Your task to perform on an android device: clear all cookies in the chrome app Image 0: 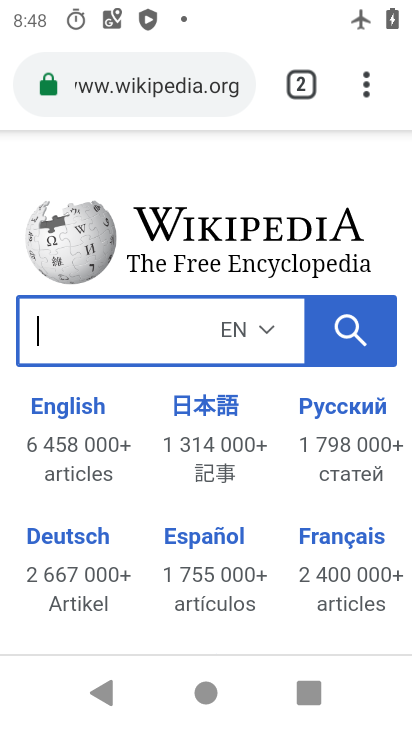
Step 0: click (297, 0)
Your task to perform on an android device: clear all cookies in the chrome app Image 1: 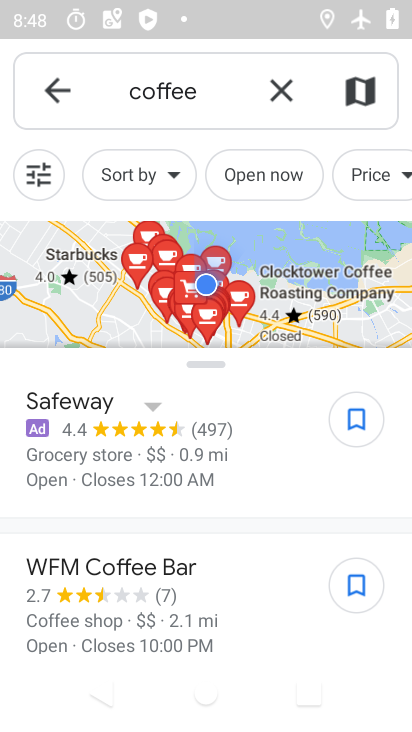
Step 1: press home button
Your task to perform on an android device: clear all cookies in the chrome app Image 2: 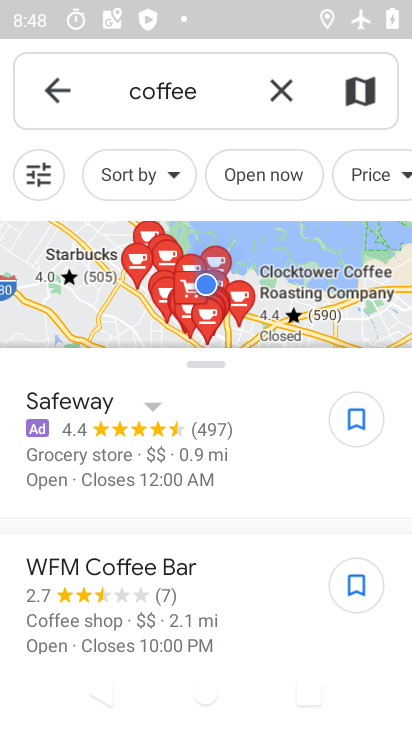
Step 2: press home button
Your task to perform on an android device: clear all cookies in the chrome app Image 3: 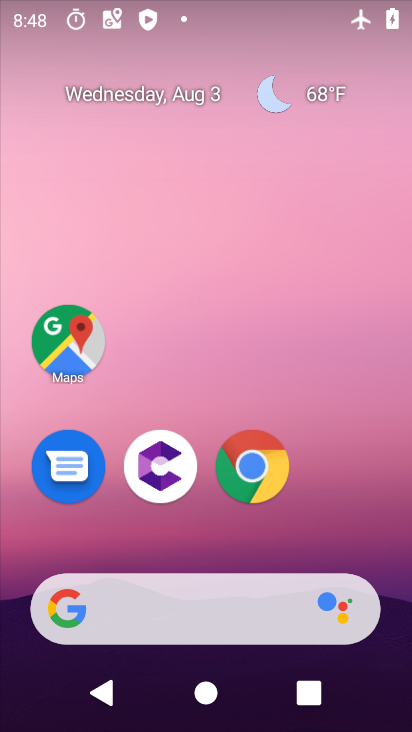
Step 3: drag from (347, 500) to (354, 31)
Your task to perform on an android device: clear all cookies in the chrome app Image 4: 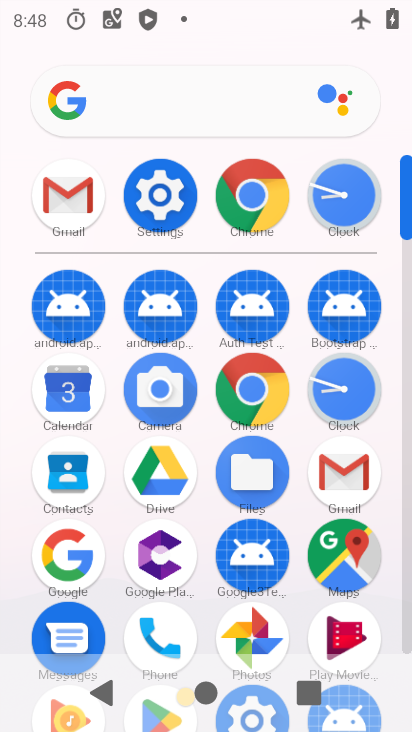
Step 4: click (255, 396)
Your task to perform on an android device: clear all cookies in the chrome app Image 5: 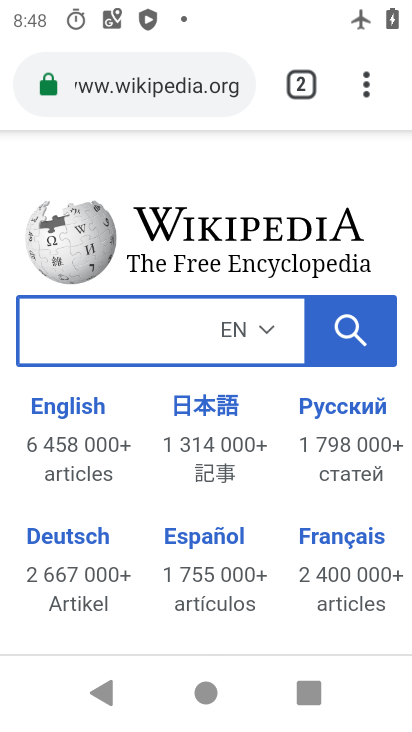
Step 5: task complete